Your task to perform on an android device: all mails in gmail Image 0: 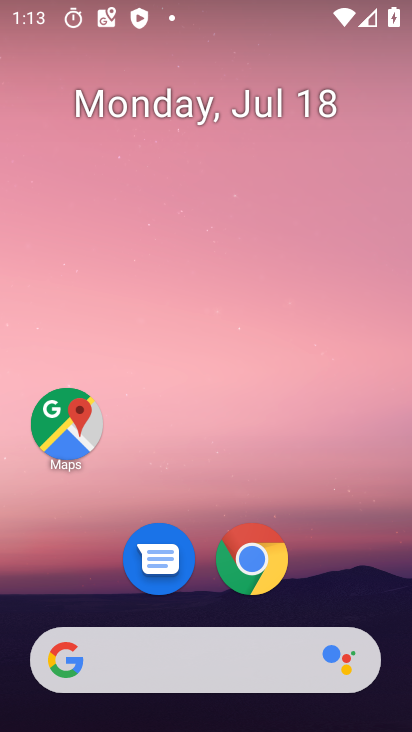
Step 0: drag from (99, 583) to (174, 72)
Your task to perform on an android device: all mails in gmail Image 1: 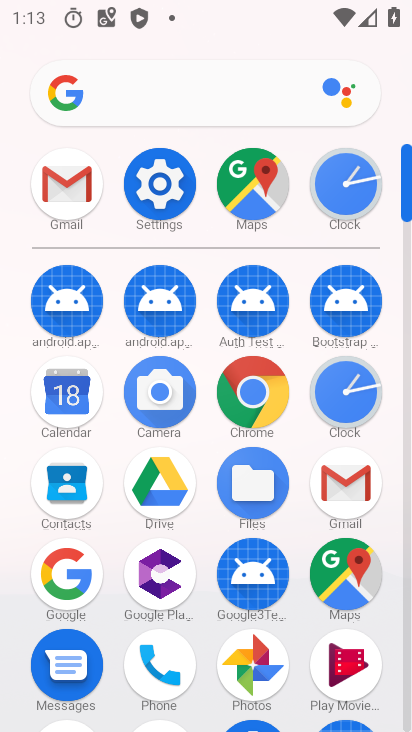
Step 1: click (63, 185)
Your task to perform on an android device: all mails in gmail Image 2: 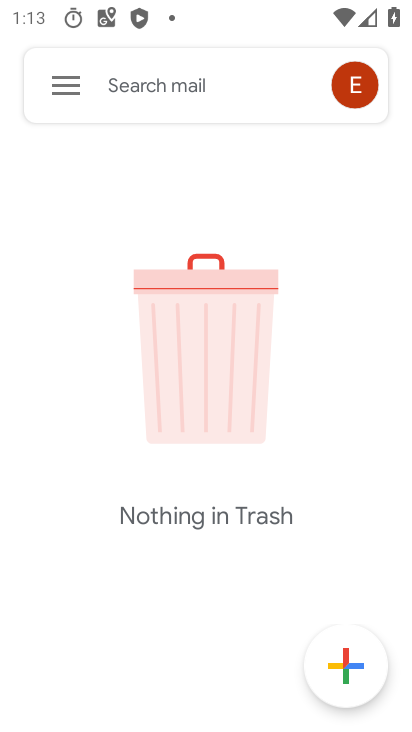
Step 2: click (65, 98)
Your task to perform on an android device: all mails in gmail Image 3: 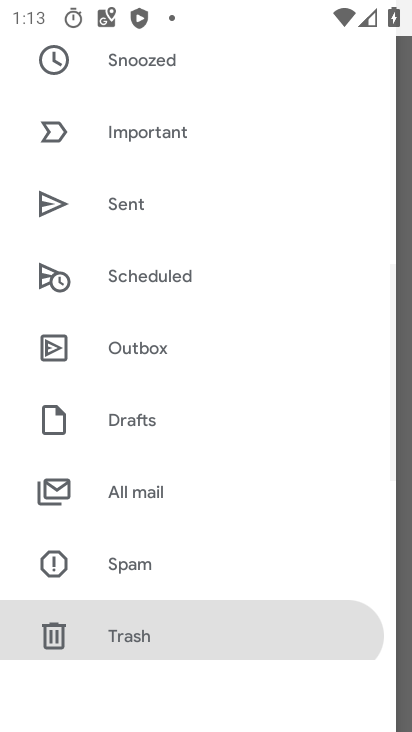
Step 3: click (192, 500)
Your task to perform on an android device: all mails in gmail Image 4: 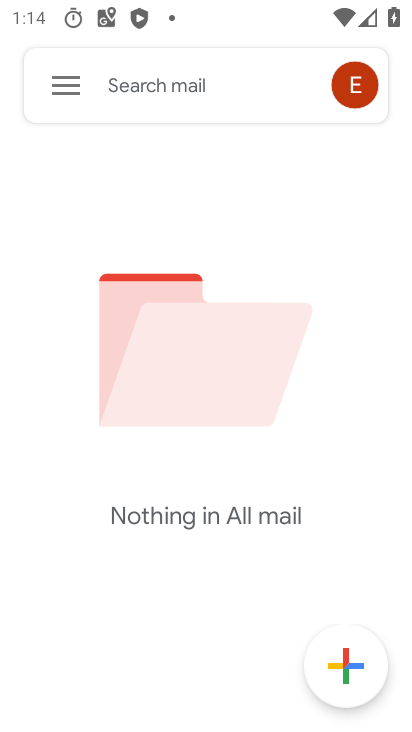
Step 4: task complete